Your task to perform on an android device: turn on showing notifications on the lock screen Image 0: 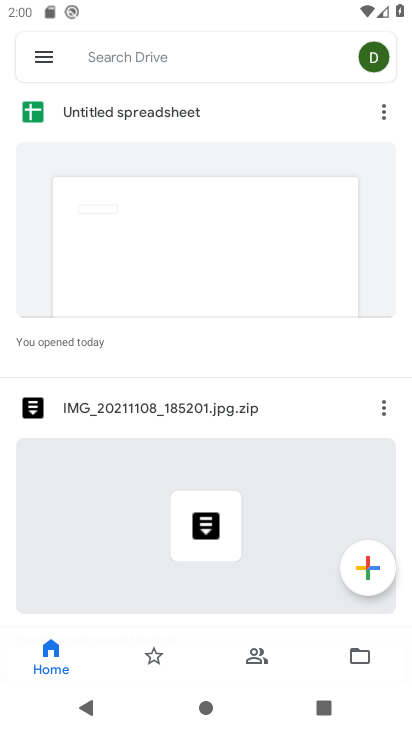
Step 0: press home button
Your task to perform on an android device: turn on showing notifications on the lock screen Image 1: 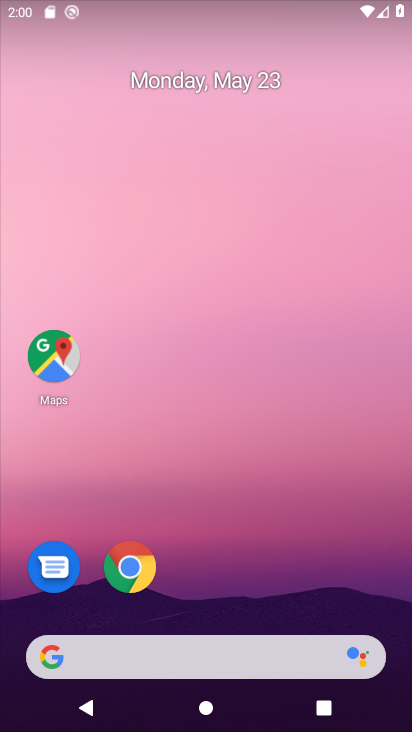
Step 1: drag from (217, 608) to (215, 227)
Your task to perform on an android device: turn on showing notifications on the lock screen Image 2: 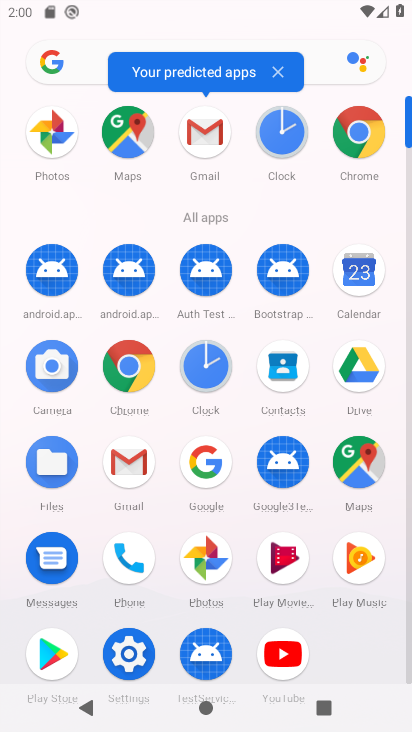
Step 2: click (126, 642)
Your task to perform on an android device: turn on showing notifications on the lock screen Image 3: 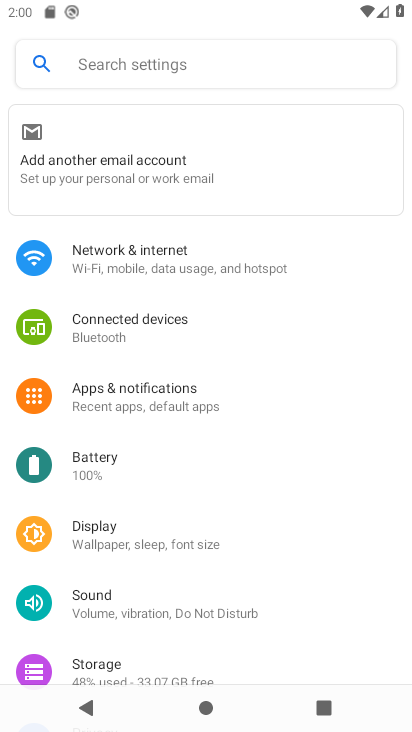
Step 3: click (193, 379)
Your task to perform on an android device: turn on showing notifications on the lock screen Image 4: 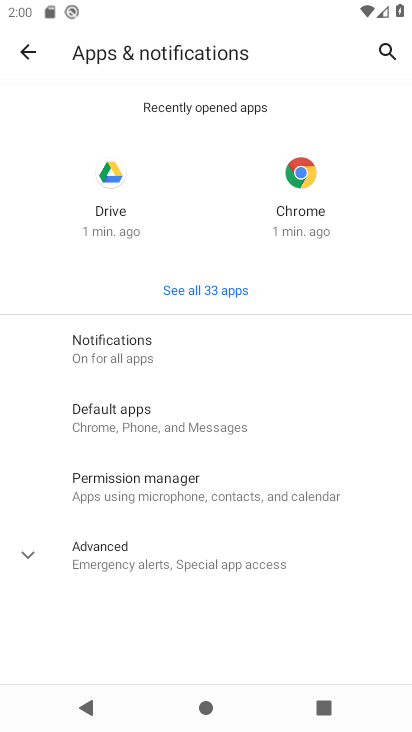
Step 4: click (181, 356)
Your task to perform on an android device: turn on showing notifications on the lock screen Image 5: 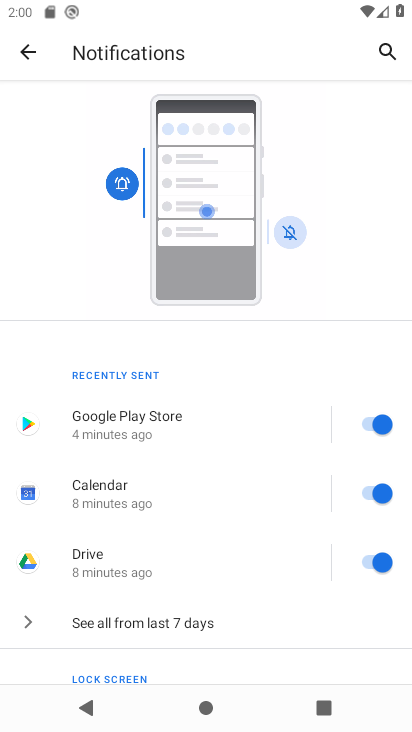
Step 5: drag from (185, 607) to (219, 288)
Your task to perform on an android device: turn on showing notifications on the lock screen Image 6: 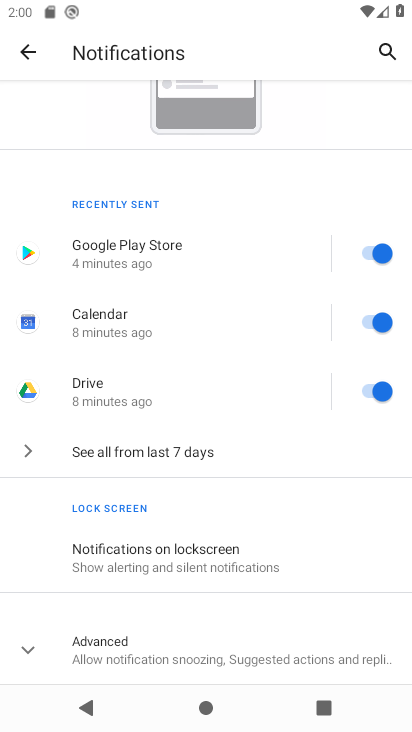
Step 6: click (224, 566)
Your task to perform on an android device: turn on showing notifications on the lock screen Image 7: 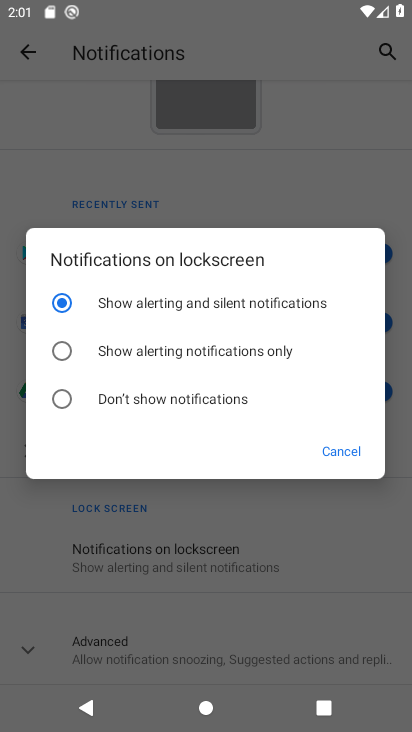
Step 7: task complete